Your task to perform on an android device: turn off wifi Image 0: 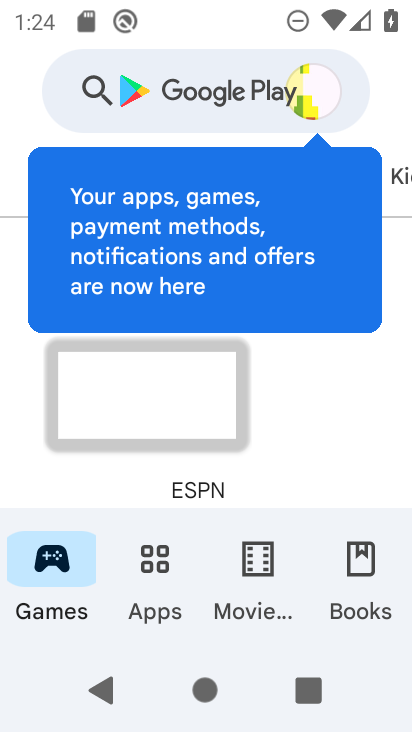
Step 0: press home button
Your task to perform on an android device: turn off wifi Image 1: 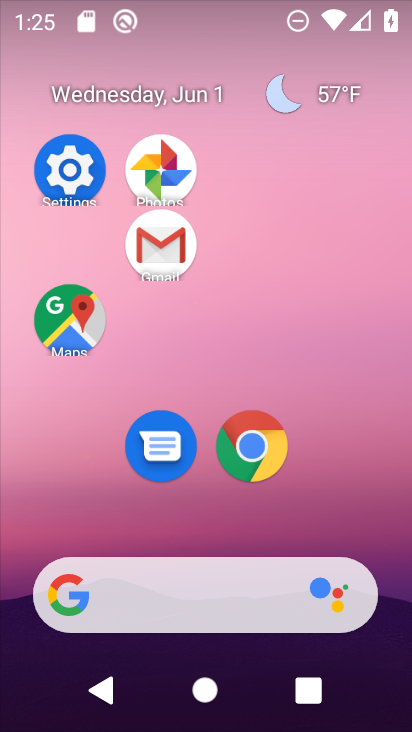
Step 1: click (64, 173)
Your task to perform on an android device: turn off wifi Image 2: 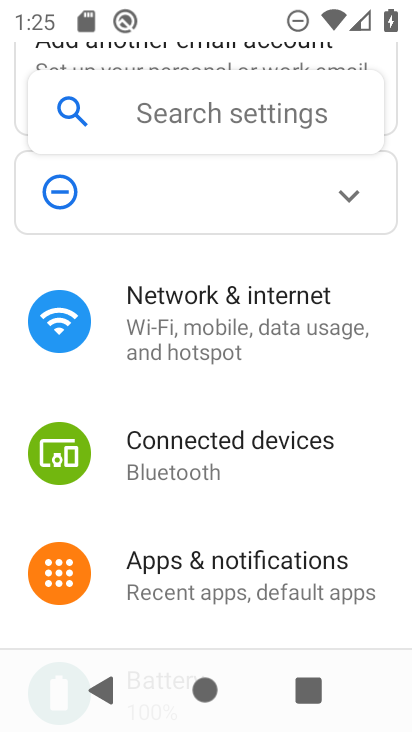
Step 2: drag from (327, 279) to (327, 540)
Your task to perform on an android device: turn off wifi Image 3: 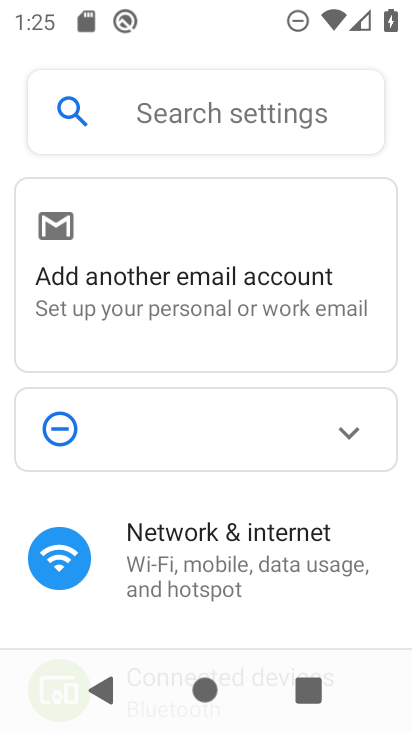
Step 3: click (269, 383)
Your task to perform on an android device: turn off wifi Image 4: 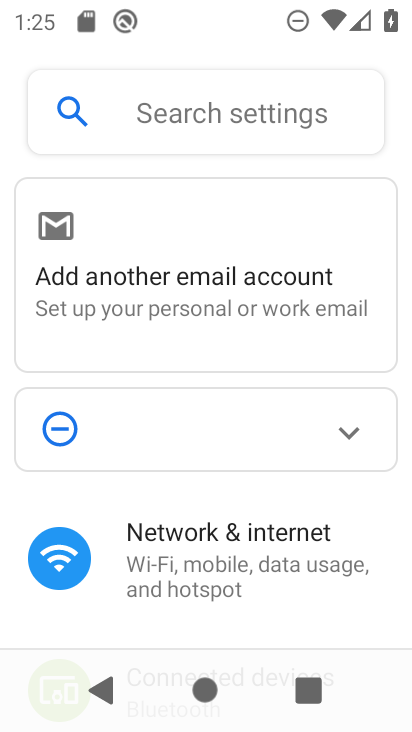
Step 4: click (271, 564)
Your task to perform on an android device: turn off wifi Image 5: 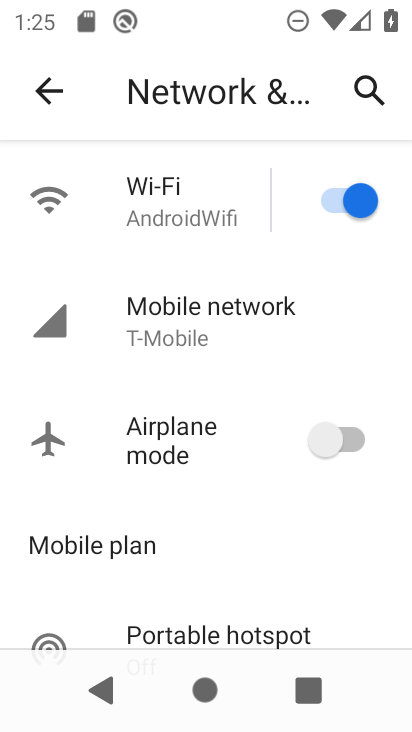
Step 5: click (380, 203)
Your task to perform on an android device: turn off wifi Image 6: 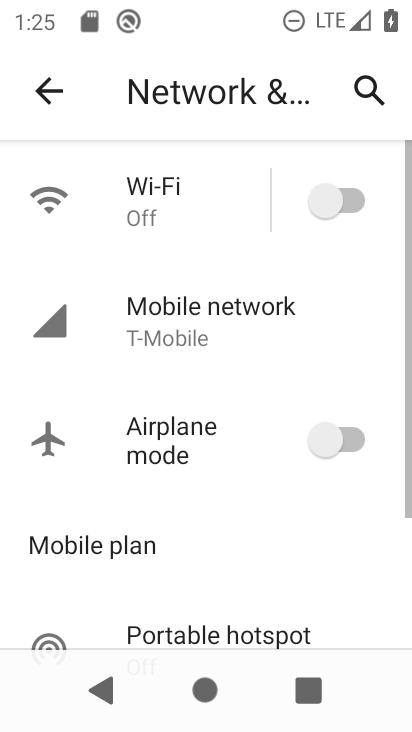
Step 6: task complete